Your task to perform on an android device: Open Maps and search for coffee Image 0: 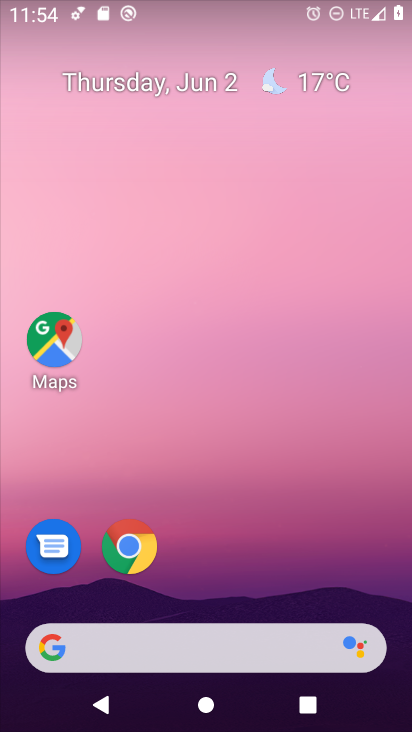
Step 0: drag from (221, 521) to (177, 39)
Your task to perform on an android device: Open Maps and search for coffee Image 1: 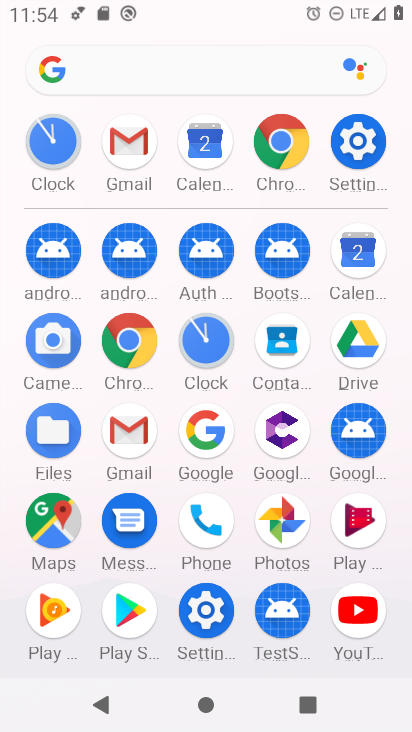
Step 1: drag from (1, 523) to (2, 235)
Your task to perform on an android device: Open Maps and search for coffee Image 2: 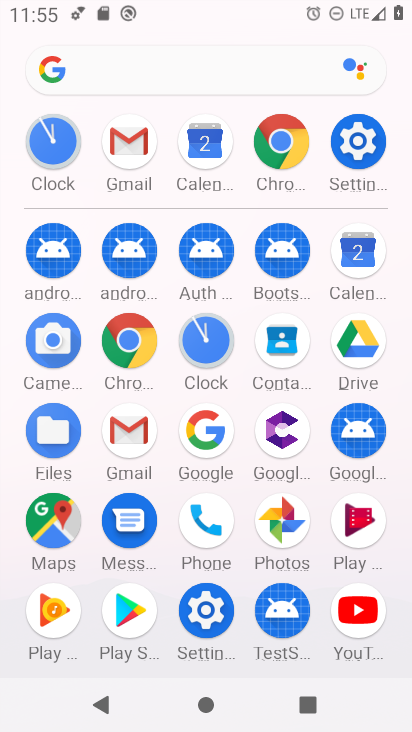
Step 2: click (51, 519)
Your task to perform on an android device: Open Maps and search for coffee Image 3: 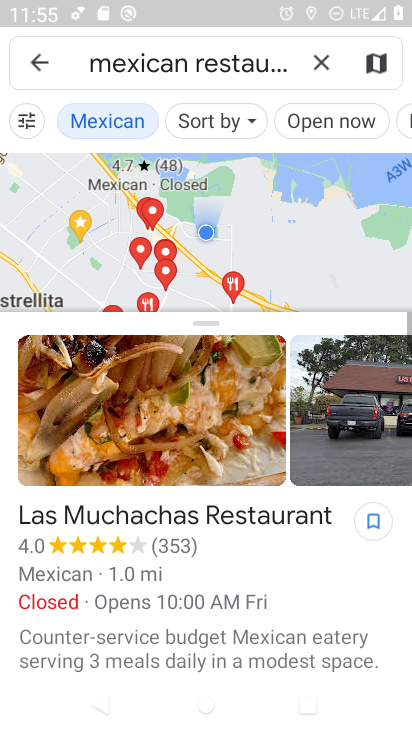
Step 3: click (315, 55)
Your task to perform on an android device: Open Maps and search for coffee Image 4: 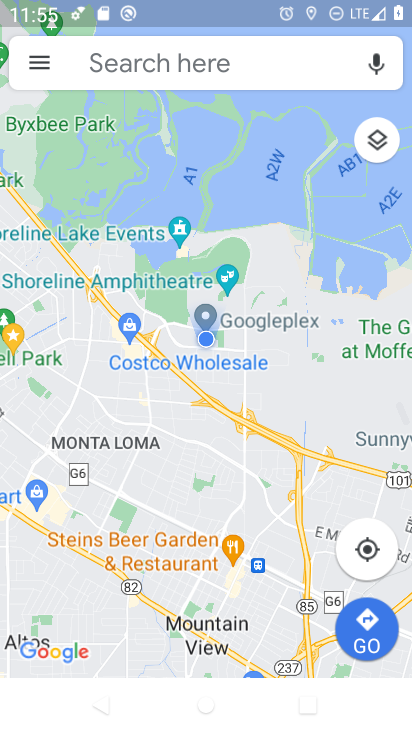
Step 4: click (253, 59)
Your task to perform on an android device: Open Maps and search for coffee Image 5: 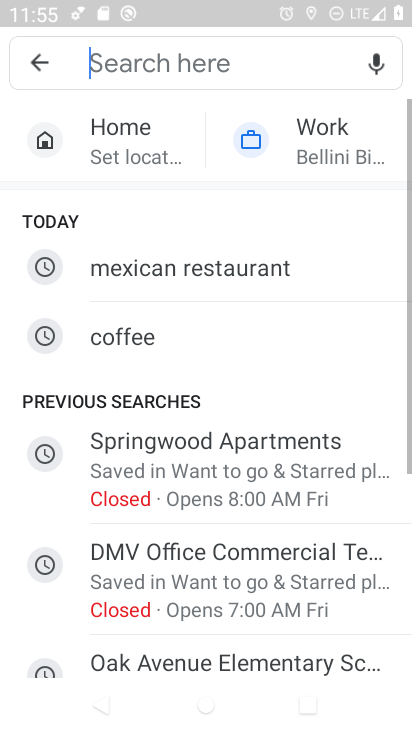
Step 5: click (127, 331)
Your task to perform on an android device: Open Maps and search for coffee Image 6: 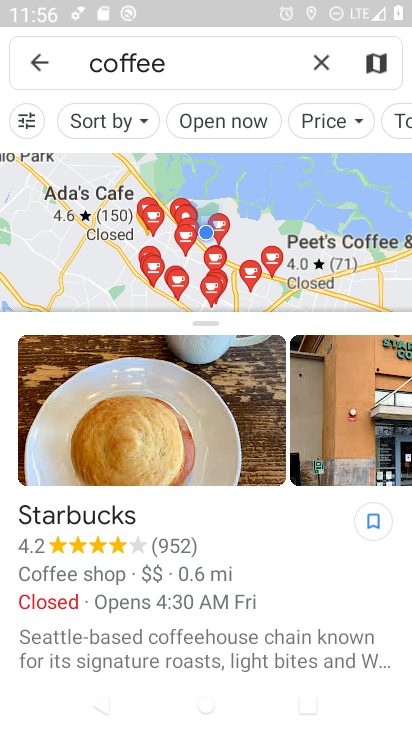
Step 6: task complete